Your task to perform on an android device: What's on my calendar tomorrow? Image 0: 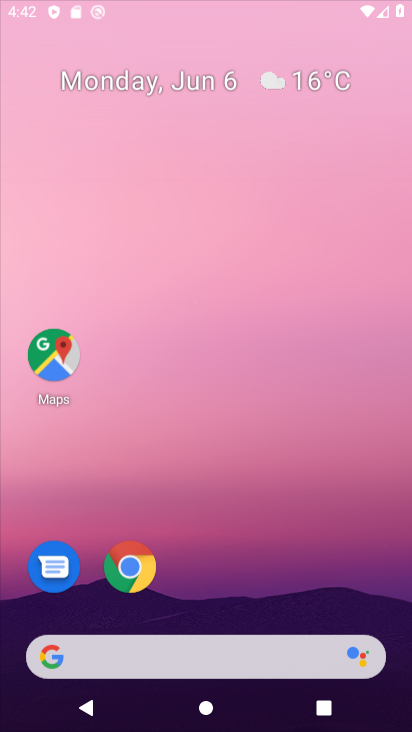
Step 0: press back button
Your task to perform on an android device: What's on my calendar tomorrow? Image 1: 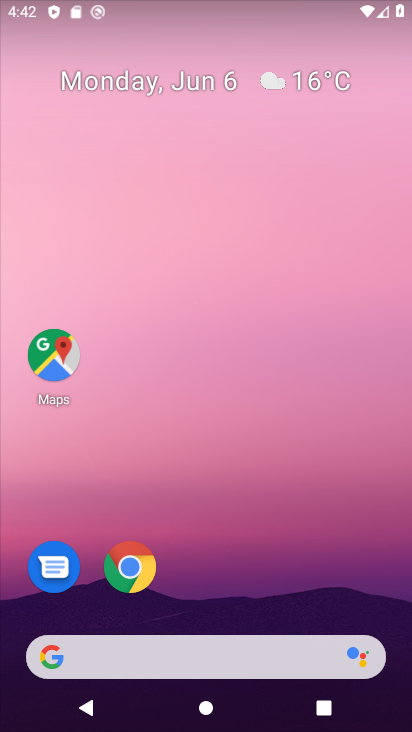
Step 1: drag from (251, 694) to (172, 212)
Your task to perform on an android device: What's on my calendar tomorrow? Image 2: 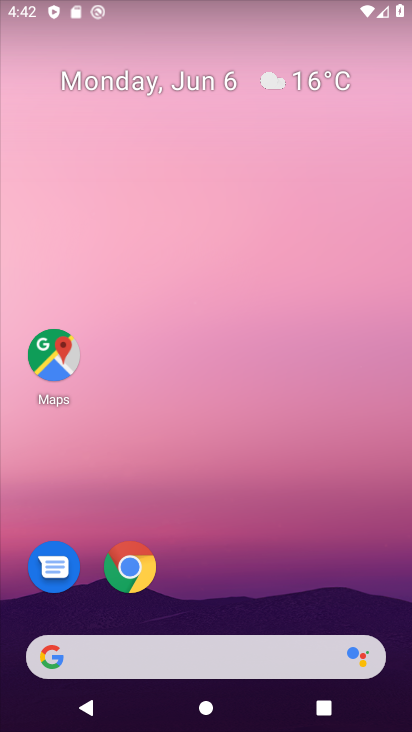
Step 2: drag from (278, 629) to (209, 252)
Your task to perform on an android device: What's on my calendar tomorrow? Image 3: 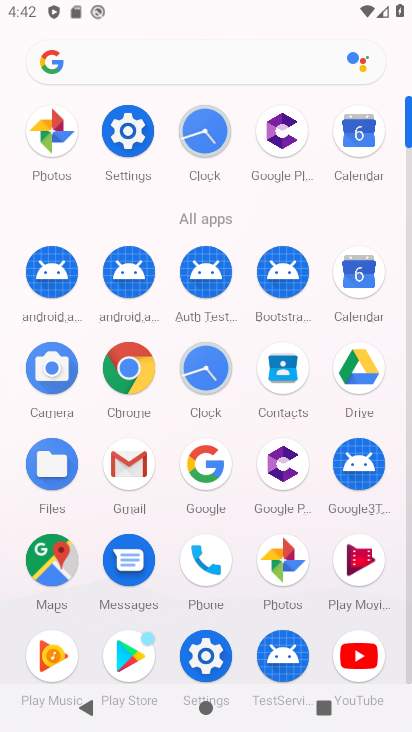
Step 3: click (352, 264)
Your task to perform on an android device: What's on my calendar tomorrow? Image 4: 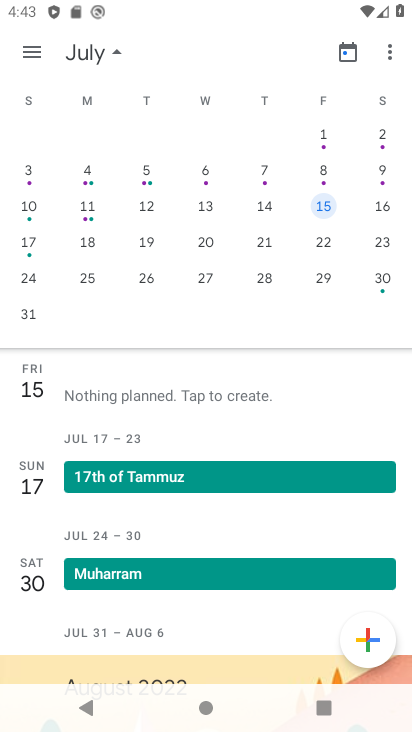
Step 4: drag from (98, 215) to (373, 202)
Your task to perform on an android device: What's on my calendar tomorrow? Image 5: 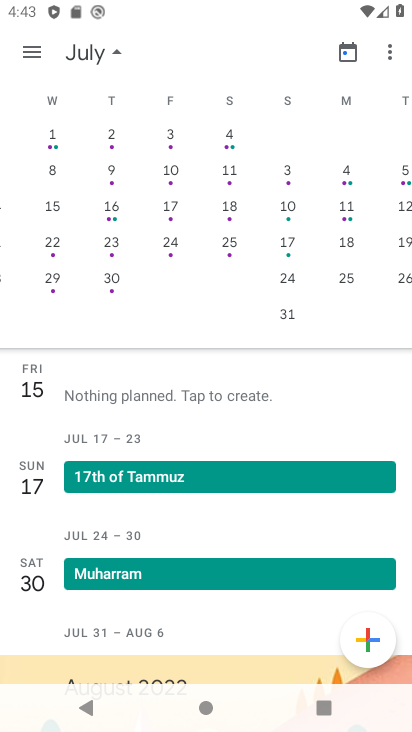
Step 5: drag from (99, 174) to (410, 213)
Your task to perform on an android device: What's on my calendar tomorrow? Image 6: 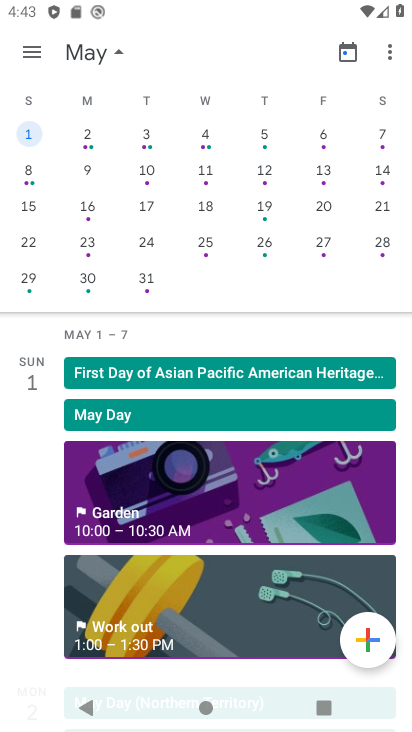
Step 6: drag from (159, 202) to (0, 250)
Your task to perform on an android device: What's on my calendar tomorrow? Image 7: 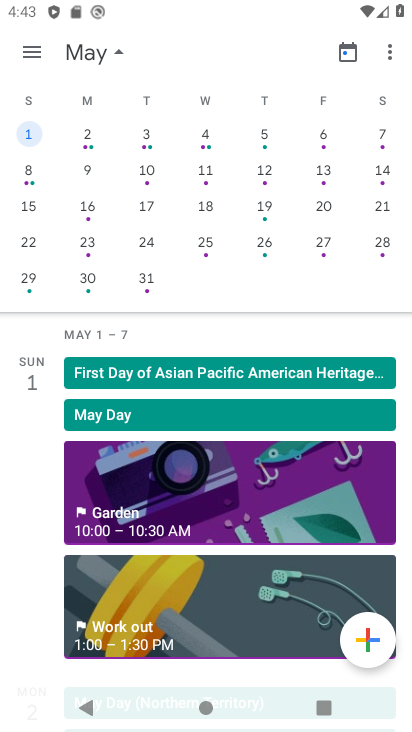
Step 7: drag from (248, 153) to (0, 227)
Your task to perform on an android device: What's on my calendar tomorrow? Image 8: 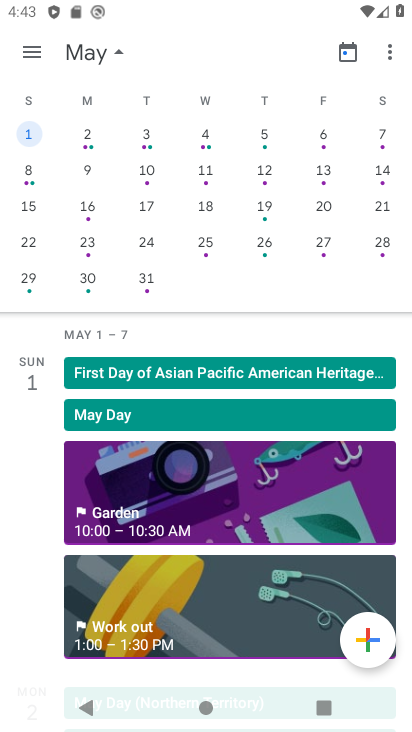
Step 8: drag from (231, 162) to (0, 210)
Your task to perform on an android device: What's on my calendar tomorrow? Image 9: 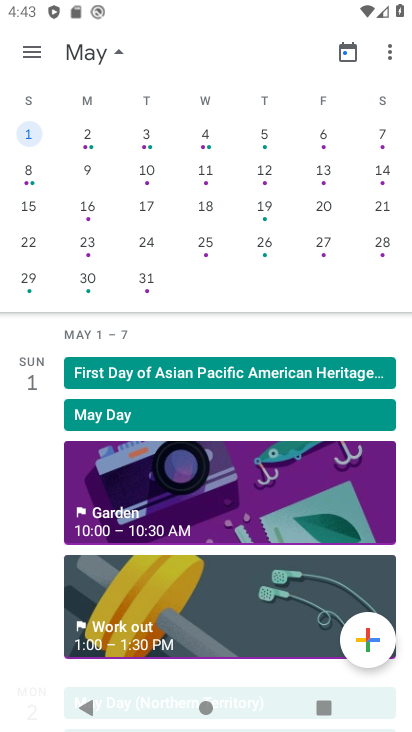
Step 9: drag from (231, 197) to (58, 268)
Your task to perform on an android device: What's on my calendar tomorrow? Image 10: 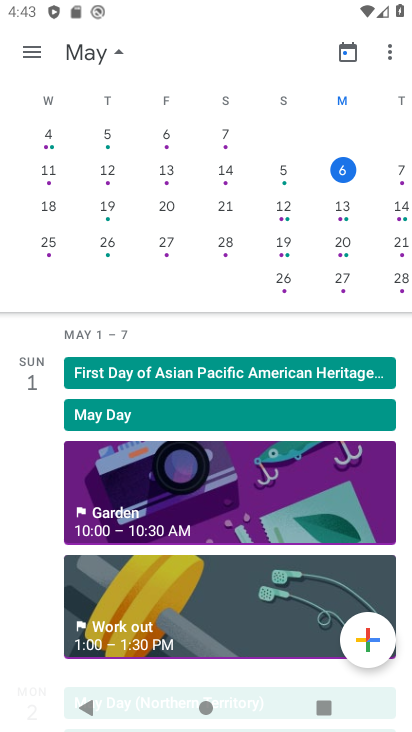
Step 10: drag from (67, 179) to (2, 176)
Your task to perform on an android device: What's on my calendar tomorrow? Image 11: 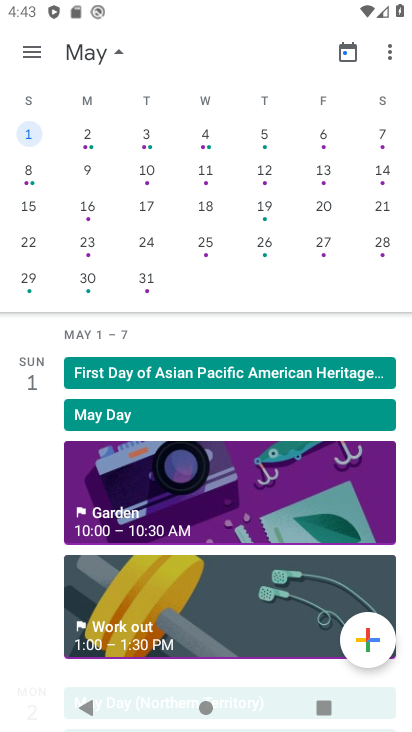
Step 11: drag from (283, 144) to (40, 231)
Your task to perform on an android device: What's on my calendar tomorrow? Image 12: 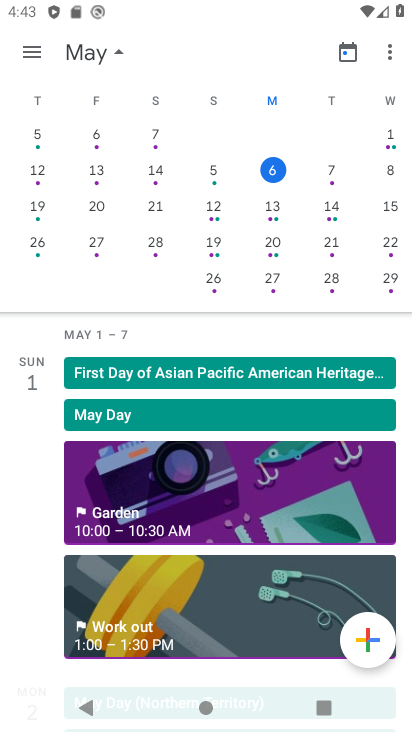
Step 12: drag from (295, 230) to (30, 250)
Your task to perform on an android device: What's on my calendar tomorrow? Image 13: 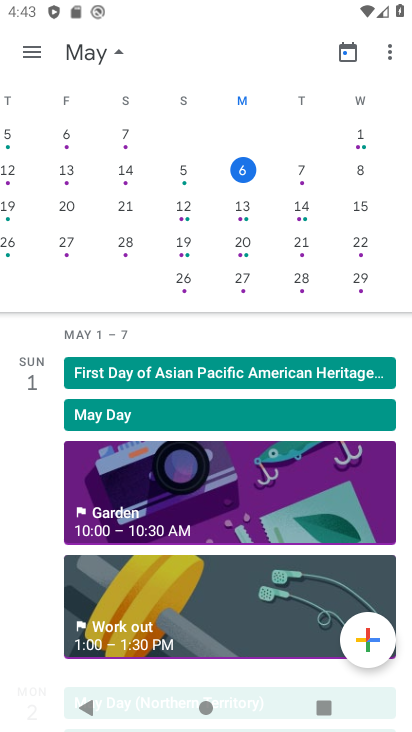
Step 13: drag from (318, 190) to (1, 229)
Your task to perform on an android device: What's on my calendar tomorrow? Image 14: 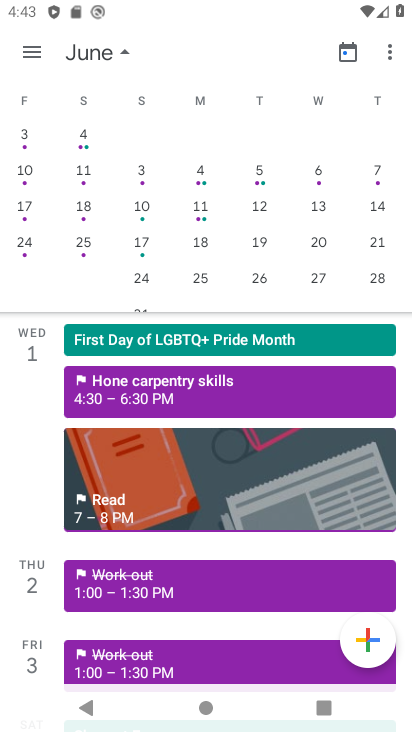
Step 14: drag from (292, 211) to (18, 246)
Your task to perform on an android device: What's on my calendar tomorrow? Image 15: 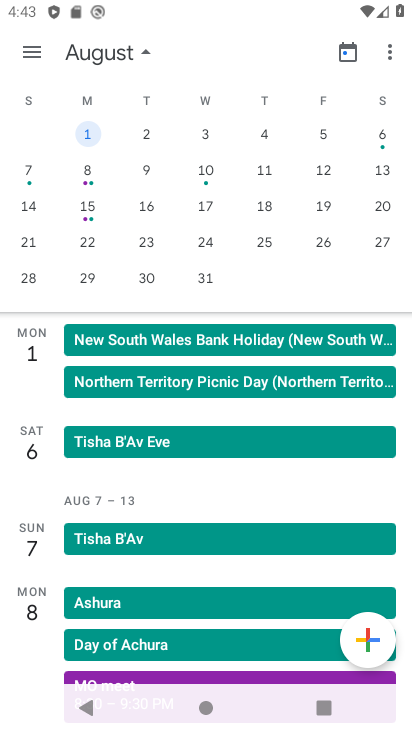
Step 15: drag from (246, 178) to (38, 255)
Your task to perform on an android device: What's on my calendar tomorrow? Image 16: 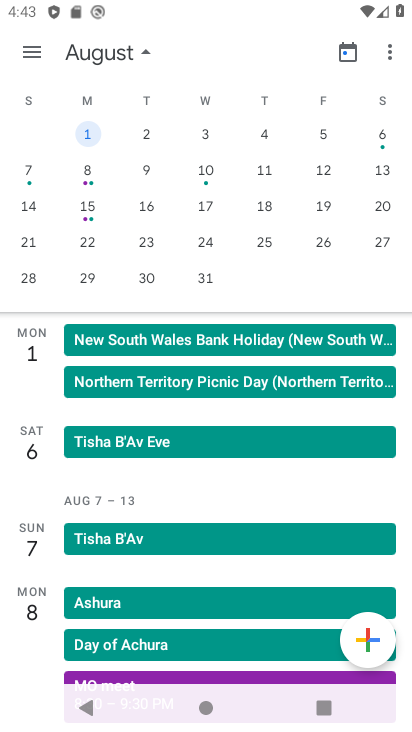
Step 16: drag from (46, 180) to (358, 175)
Your task to perform on an android device: What's on my calendar tomorrow? Image 17: 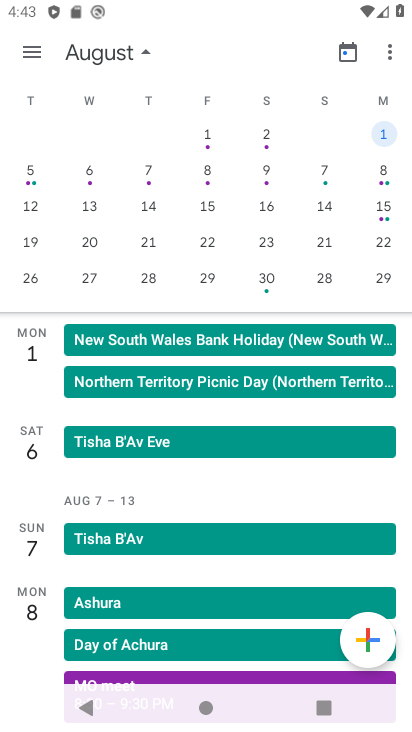
Step 17: drag from (87, 235) to (411, 171)
Your task to perform on an android device: What's on my calendar tomorrow? Image 18: 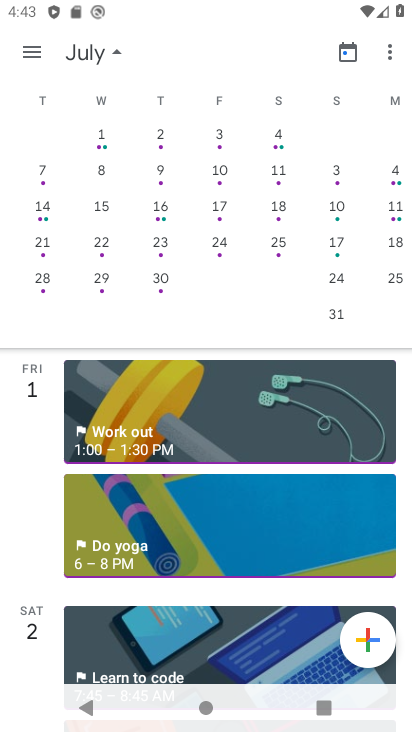
Step 18: drag from (155, 192) to (408, 188)
Your task to perform on an android device: What's on my calendar tomorrow? Image 19: 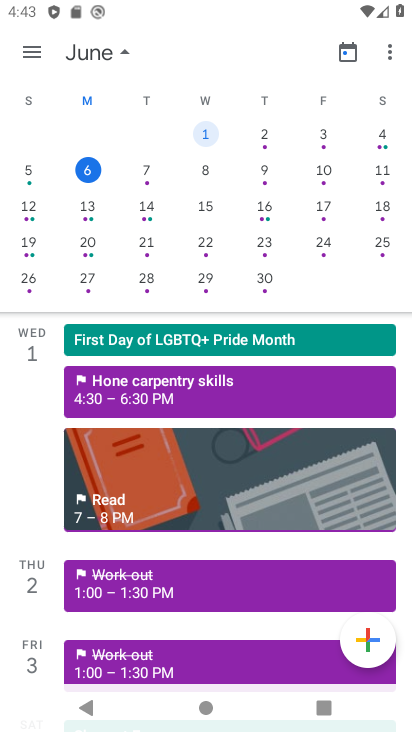
Step 19: drag from (348, 146) to (82, 235)
Your task to perform on an android device: What's on my calendar tomorrow? Image 20: 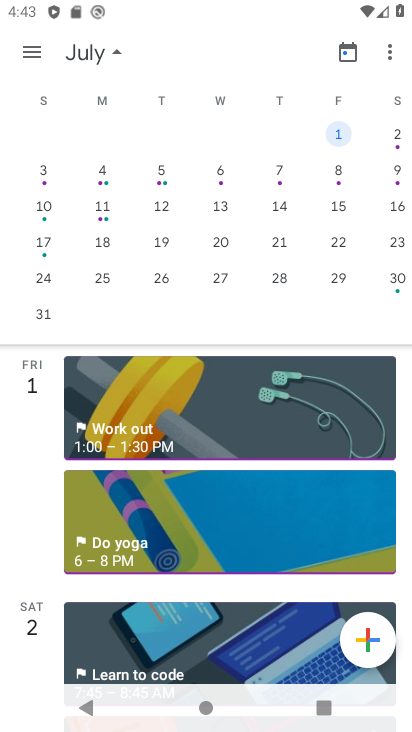
Step 20: drag from (47, 200) to (6, 191)
Your task to perform on an android device: What's on my calendar tomorrow? Image 21: 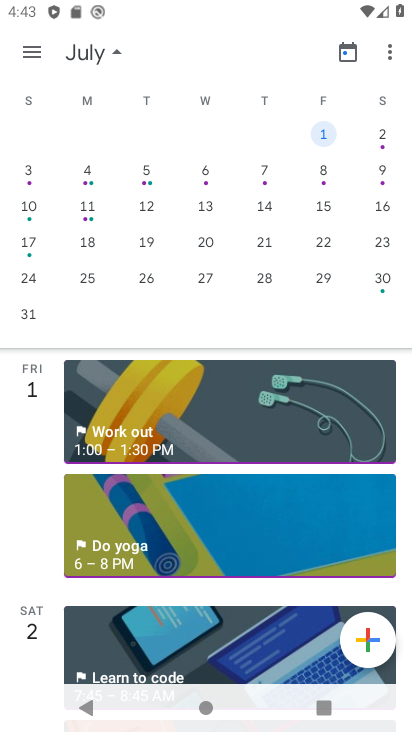
Step 21: drag from (34, 207) to (403, 225)
Your task to perform on an android device: What's on my calendar tomorrow? Image 22: 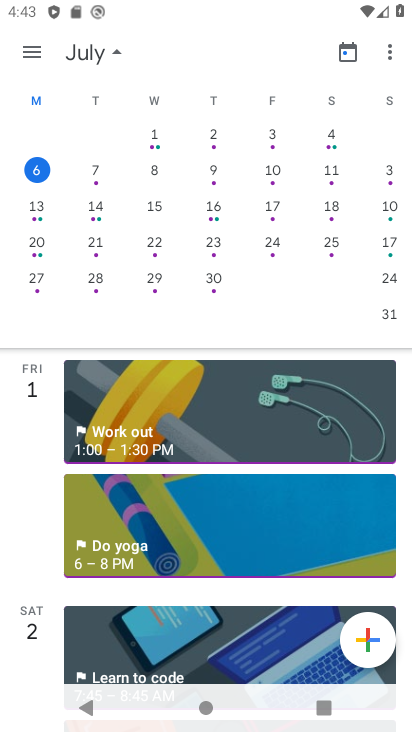
Step 22: drag from (344, 189) to (409, 206)
Your task to perform on an android device: What's on my calendar tomorrow? Image 23: 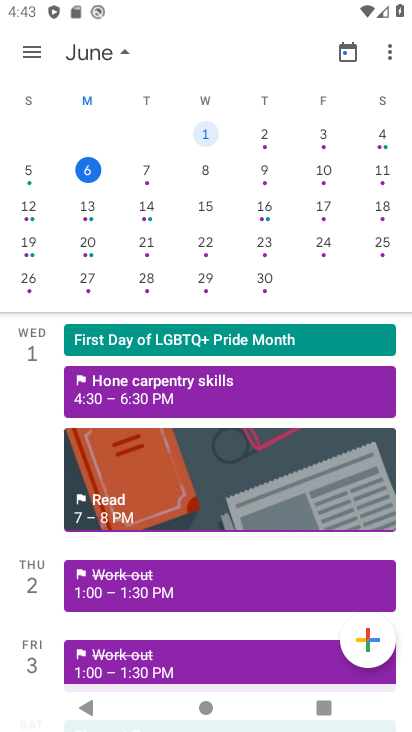
Step 23: click (198, 175)
Your task to perform on an android device: What's on my calendar tomorrow? Image 24: 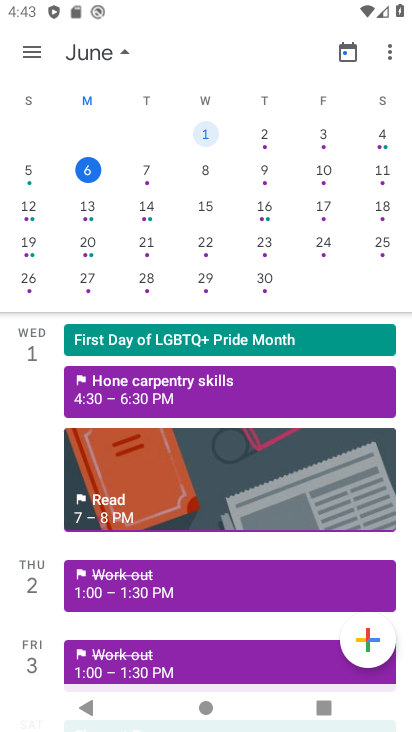
Step 24: click (198, 175)
Your task to perform on an android device: What's on my calendar tomorrow? Image 25: 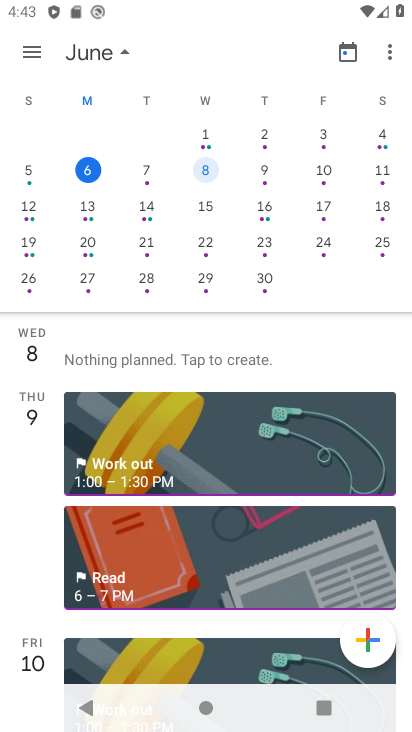
Step 25: click (198, 175)
Your task to perform on an android device: What's on my calendar tomorrow? Image 26: 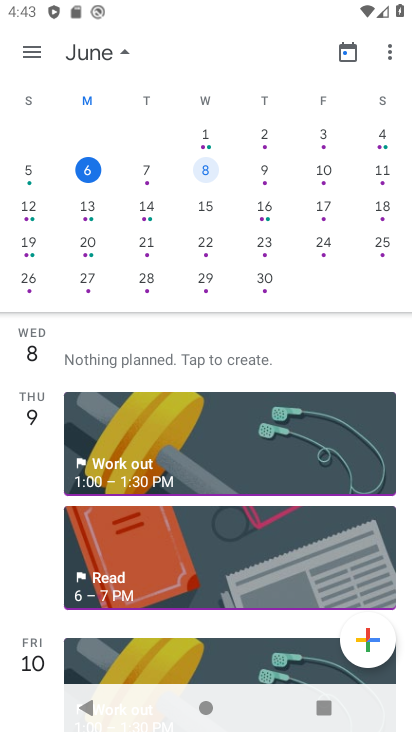
Step 26: click (151, 177)
Your task to perform on an android device: What's on my calendar tomorrow? Image 27: 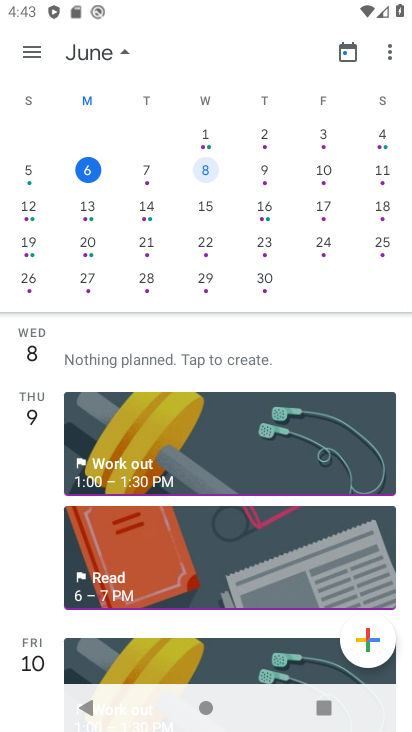
Step 27: click (147, 169)
Your task to perform on an android device: What's on my calendar tomorrow? Image 28: 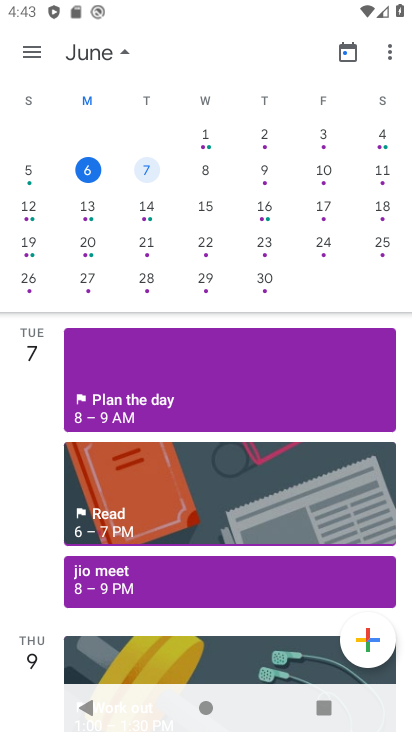
Step 28: click (144, 169)
Your task to perform on an android device: What's on my calendar tomorrow? Image 29: 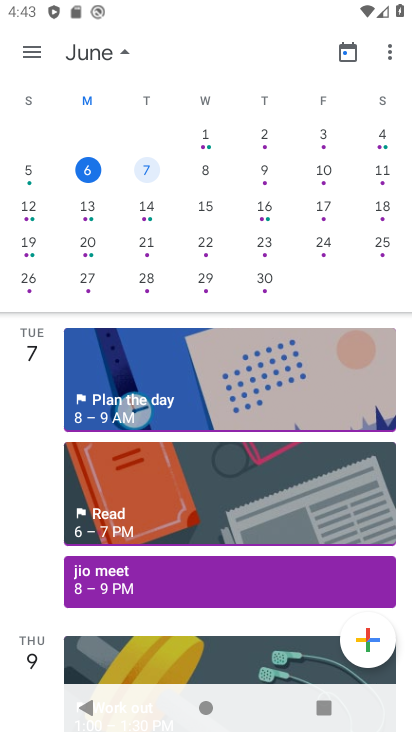
Step 29: click (145, 168)
Your task to perform on an android device: What's on my calendar tomorrow? Image 30: 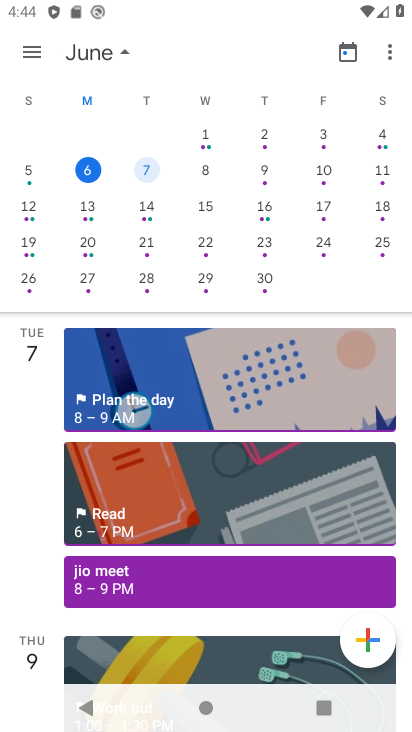
Step 30: task complete